Your task to perform on an android device: see sites visited before in the chrome app Image 0: 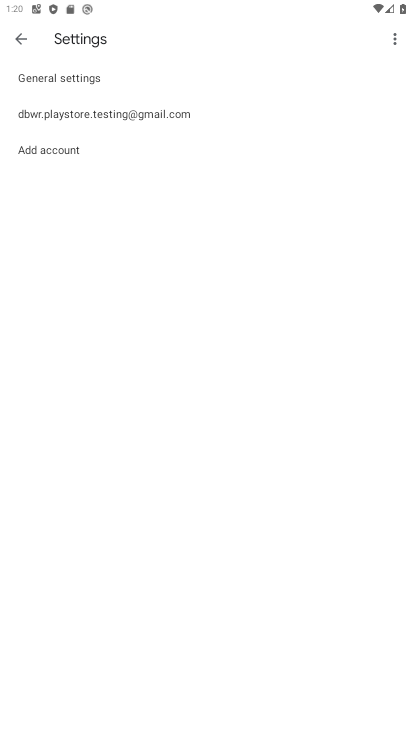
Step 0: press back button
Your task to perform on an android device: see sites visited before in the chrome app Image 1: 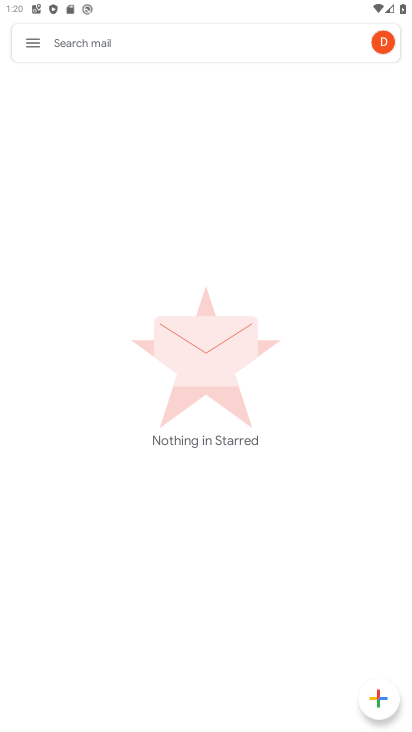
Step 1: press home button
Your task to perform on an android device: see sites visited before in the chrome app Image 2: 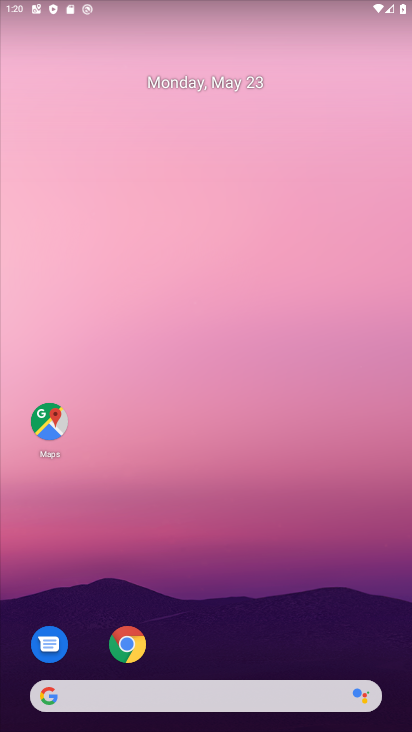
Step 2: drag from (259, 591) to (198, 8)
Your task to perform on an android device: see sites visited before in the chrome app Image 3: 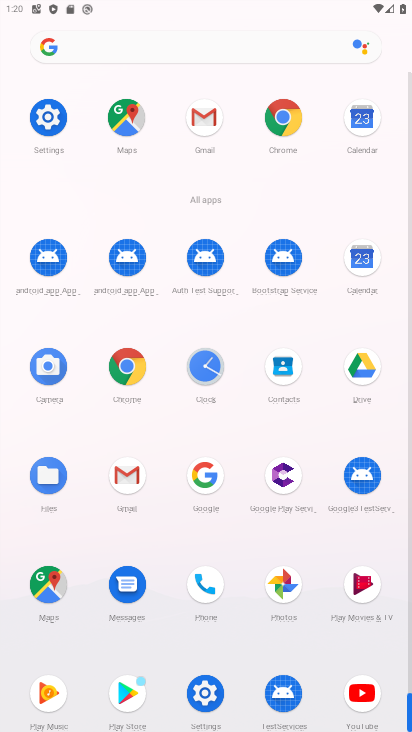
Step 3: click (125, 363)
Your task to perform on an android device: see sites visited before in the chrome app Image 4: 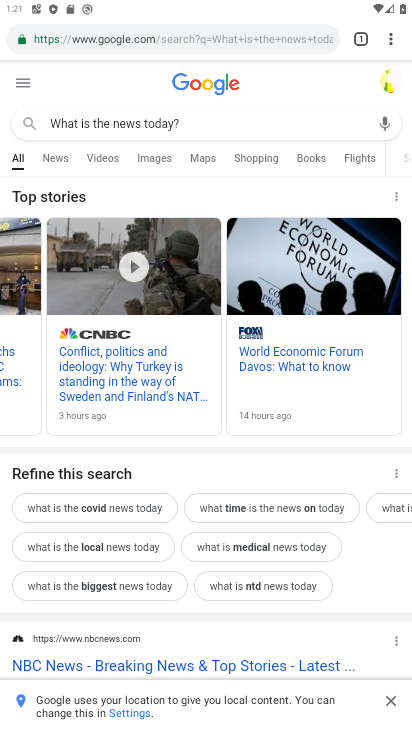
Step 4: task complete